Your task to perform on an android device: change keyboard looks Image 0: 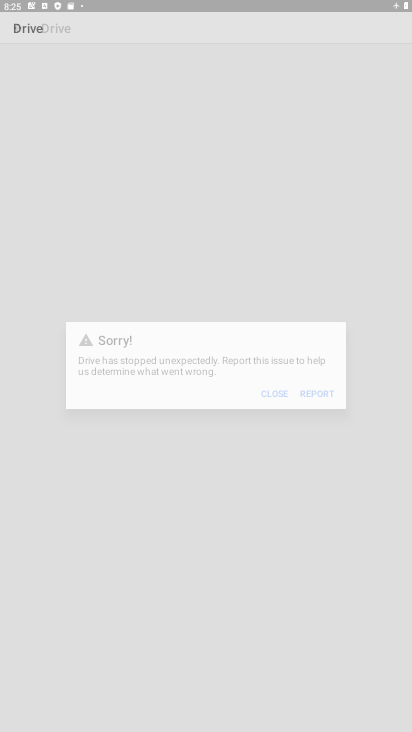
Step 0: press home button
Your task to perform on an android device: change keyboard looks Image 1: 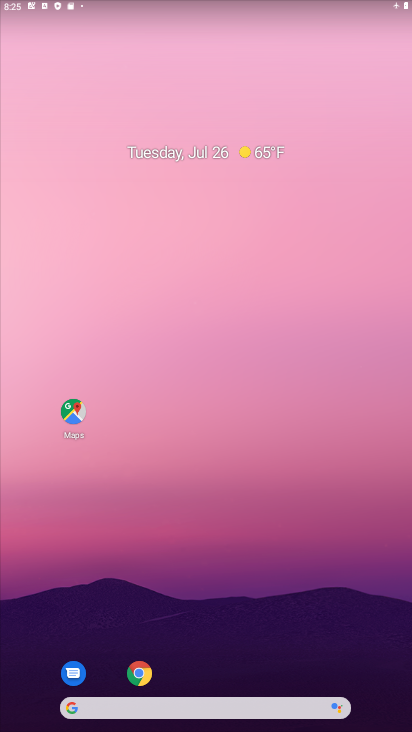
Step 1: drag from (186, 657) to (185, 164)
Your task to perform on an android device: change keyboard looks Image 2: 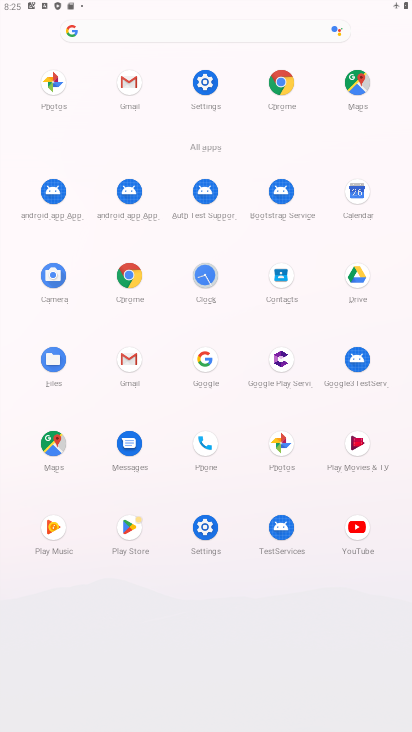
Step 2: click (203, 89)
Your task to perform on an android device: change keyboard looks Image 3: 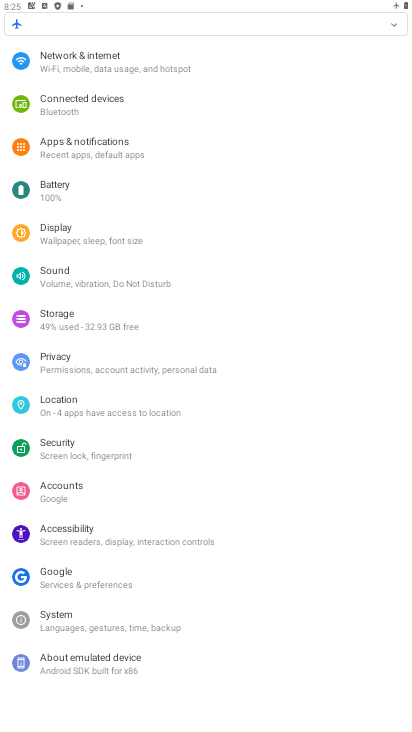
Step 3: click (99, 623)
Your task to perform on an android device: change keyboard looks Image 4: 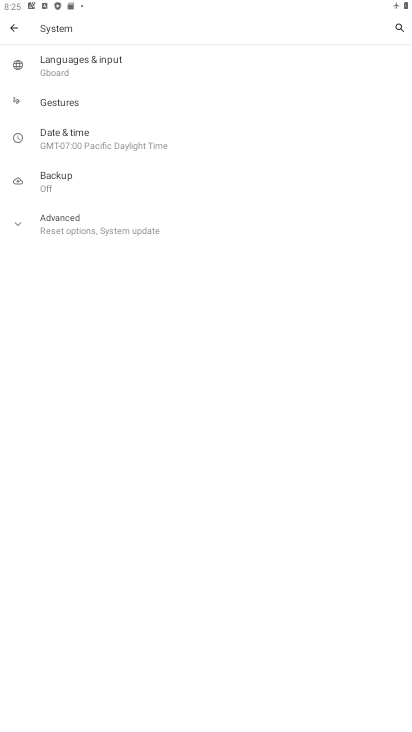
Step 4: click (95, 233)
Your task to perform on an android device: change keyboard looks Image 5: 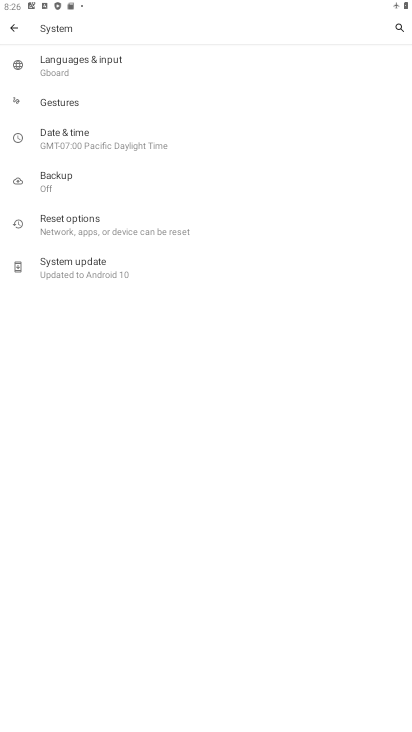
Step 5: click (110, 74)
Your task to perform on an android device: change keyboard looks Image 6: 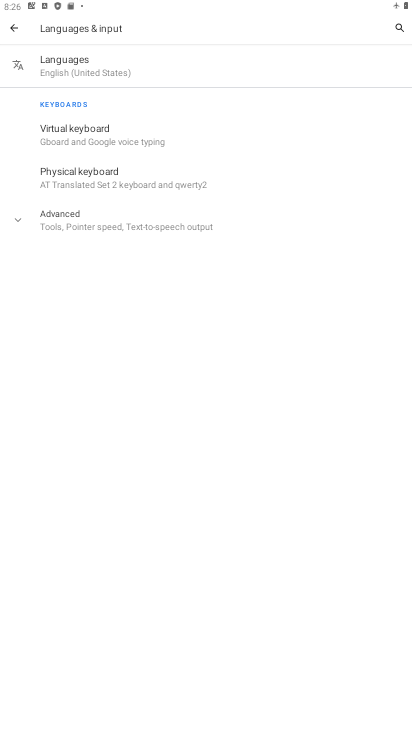
Step 6: click (113, 144)
Your task to perform on an android device: change keyboard looks Image 7: 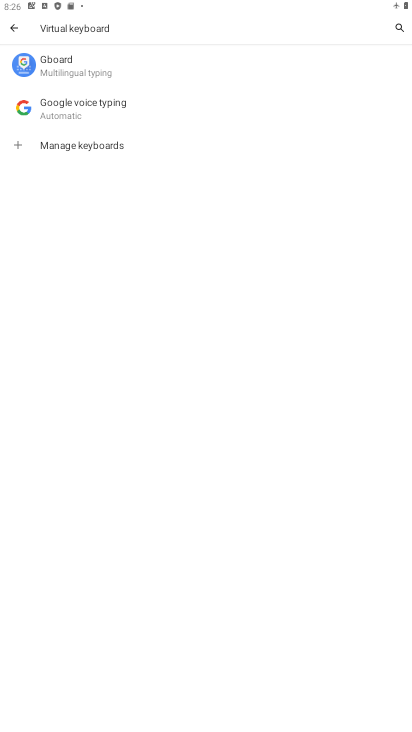
Step 7: click (117, 53)
Your task to perform on an android device: change keyboard looks Image 8: 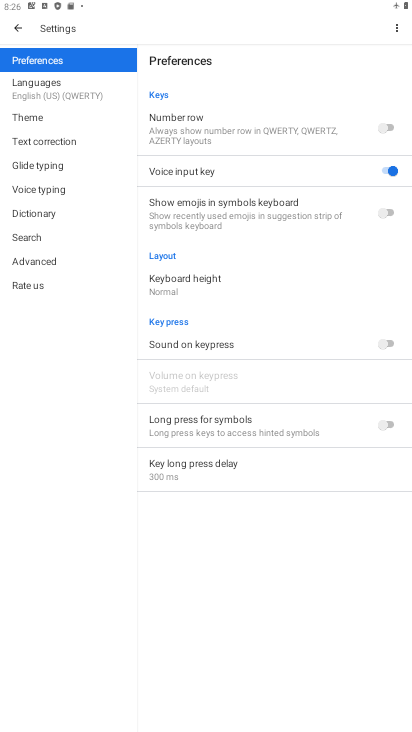
Step 8: click (44, 122)
Your task to perform on an android device: change keyboard looks Image 9: 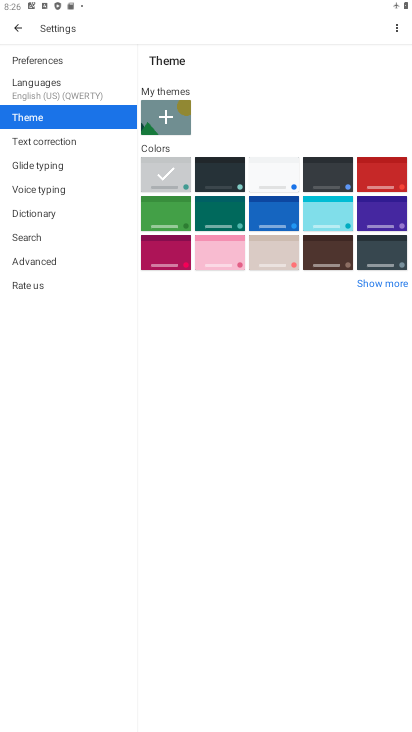
Step 9: click (289, 218)
Your task to perform on an android device: change keyboard looks Image 10: 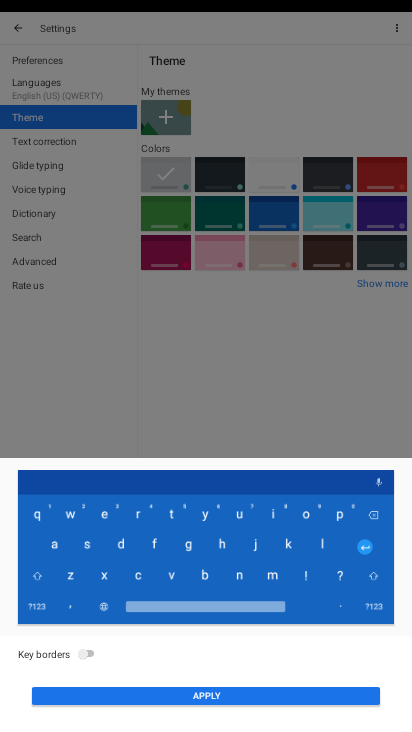
Step 10: click (222, 692)
Your task to perform on an android device: change keyboard looks Image 11: 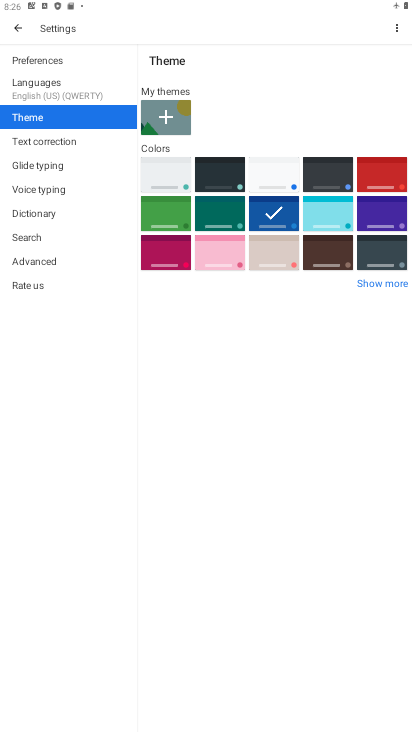
Step 11: task complete